Your task to perform on an android device: Go to Android settings Image 0: 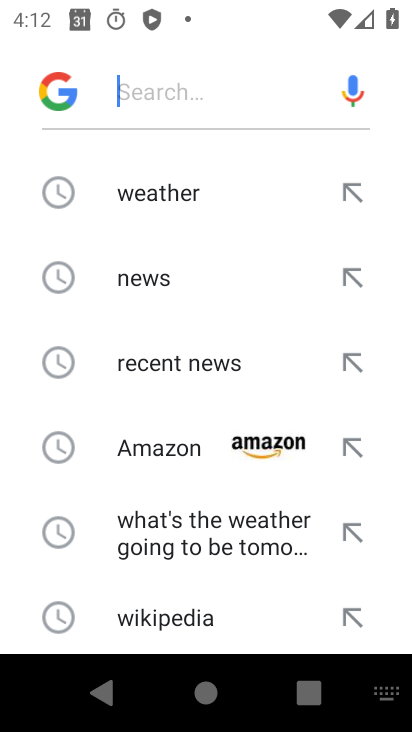
Step 0: press home button
Your task to perform on an android device: Go to Android settings Image 1: 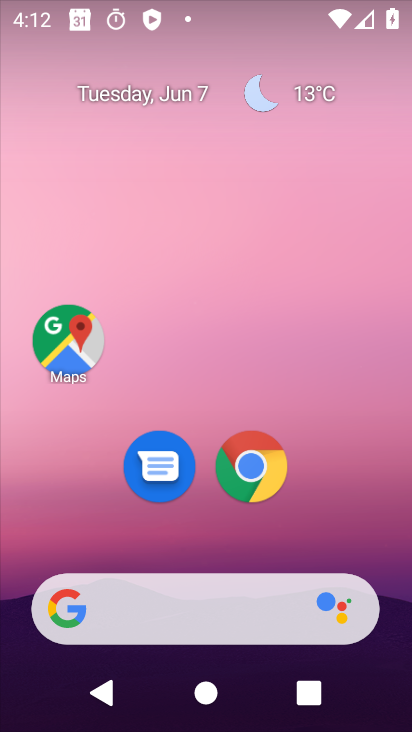
Step 1: drag from (375, 541) to (225, 114)
Your task to perform on an android device: Go to Android settings Image 2: 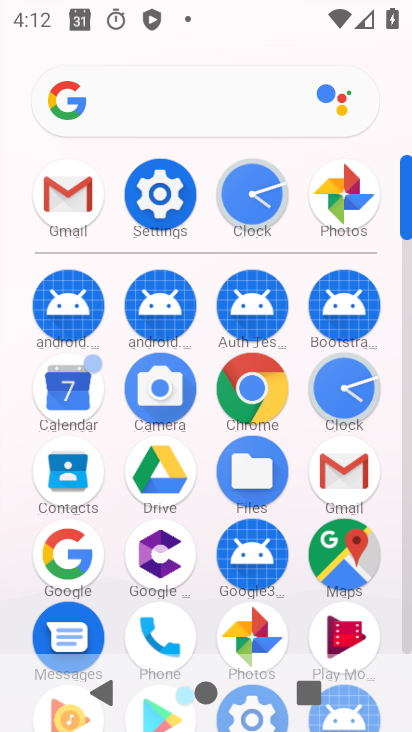
Step 2: click (164, 184)
Your task to perform on an android device: Go to Android settings Image 3: 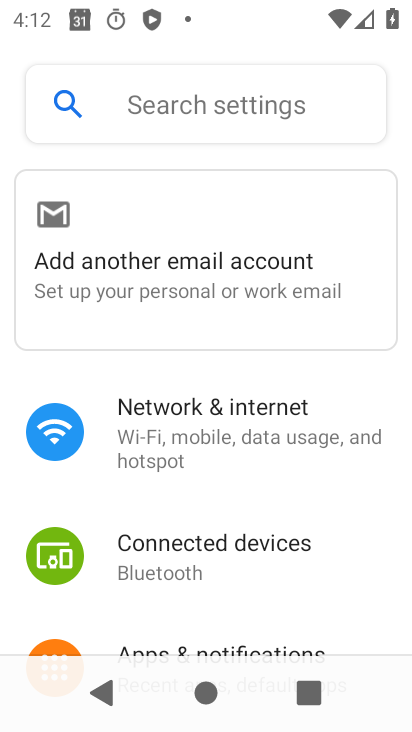
Step 3: task complete